Your task to perform on an android device: check google app version Image 0: 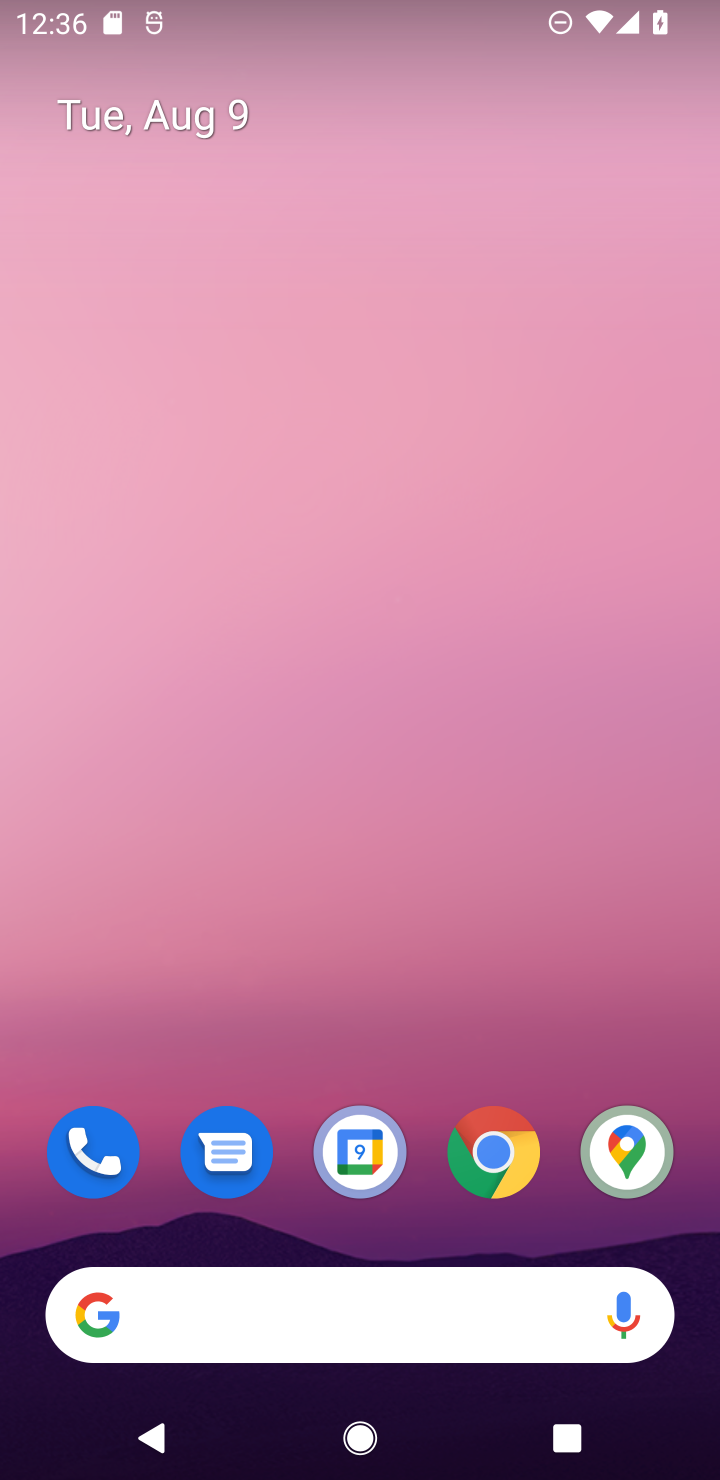
Step 0: drag from (413, 1081) to (364, 176)
Your task to perform on an android device: check google app version Image 1: 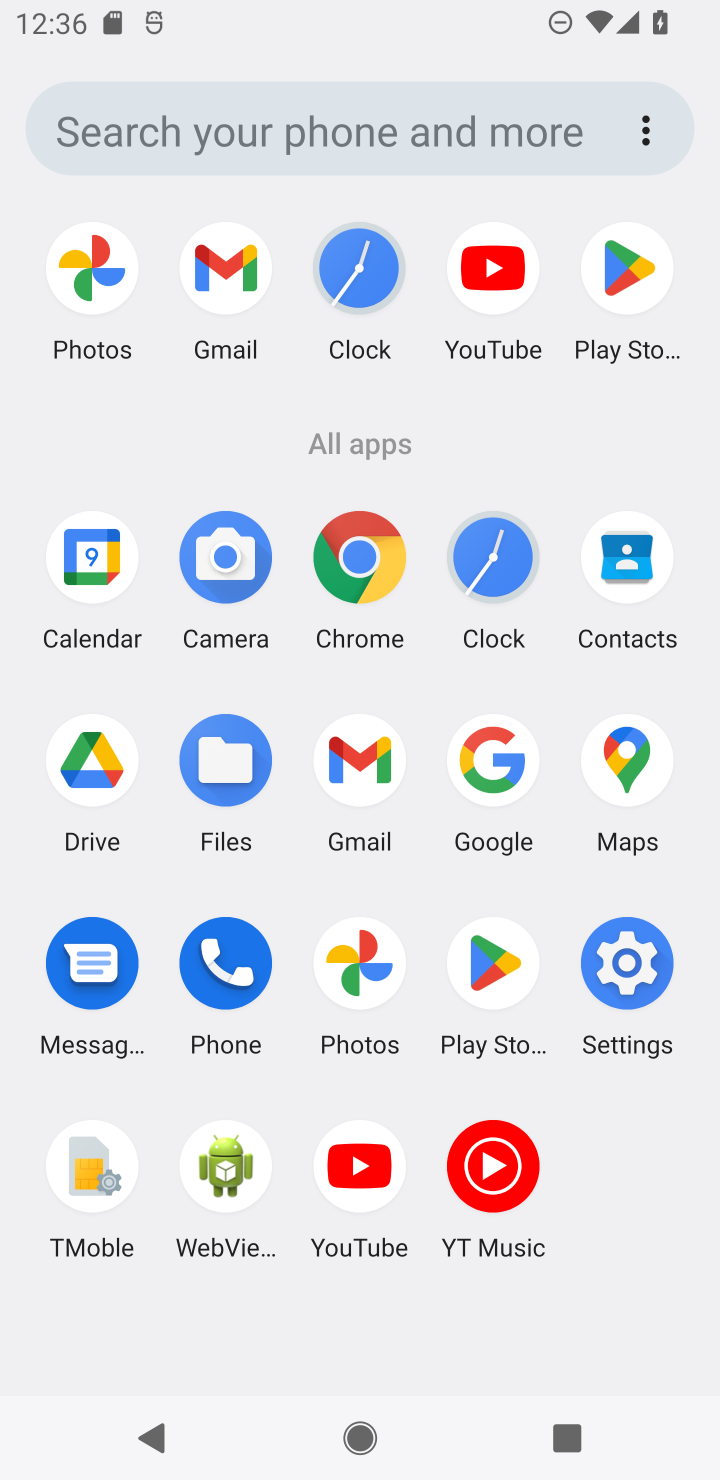
Step 1: click (492, 769)
Your task to perform on an android device: check google app version Image 2: 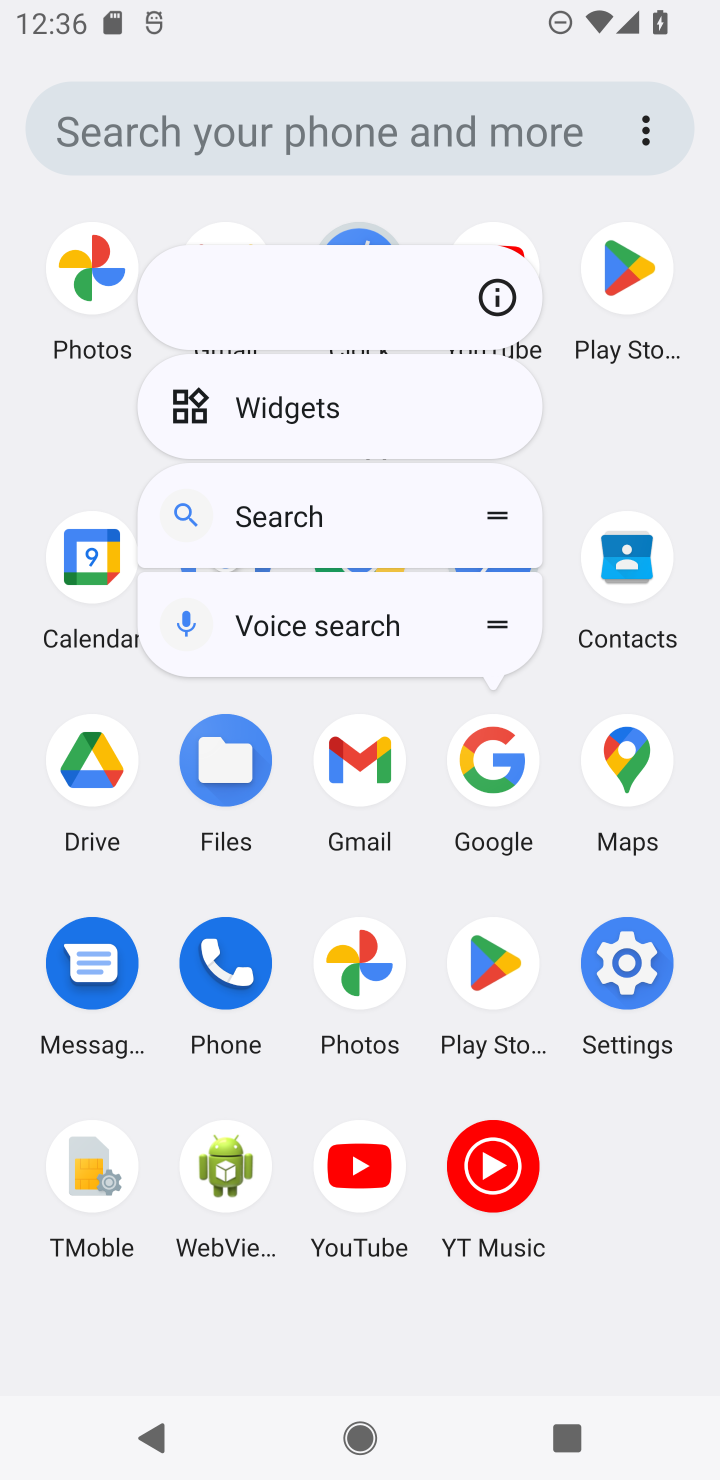
Step 2: click (492, 289)
Your task to perform on an android device: check google app version Image 3: 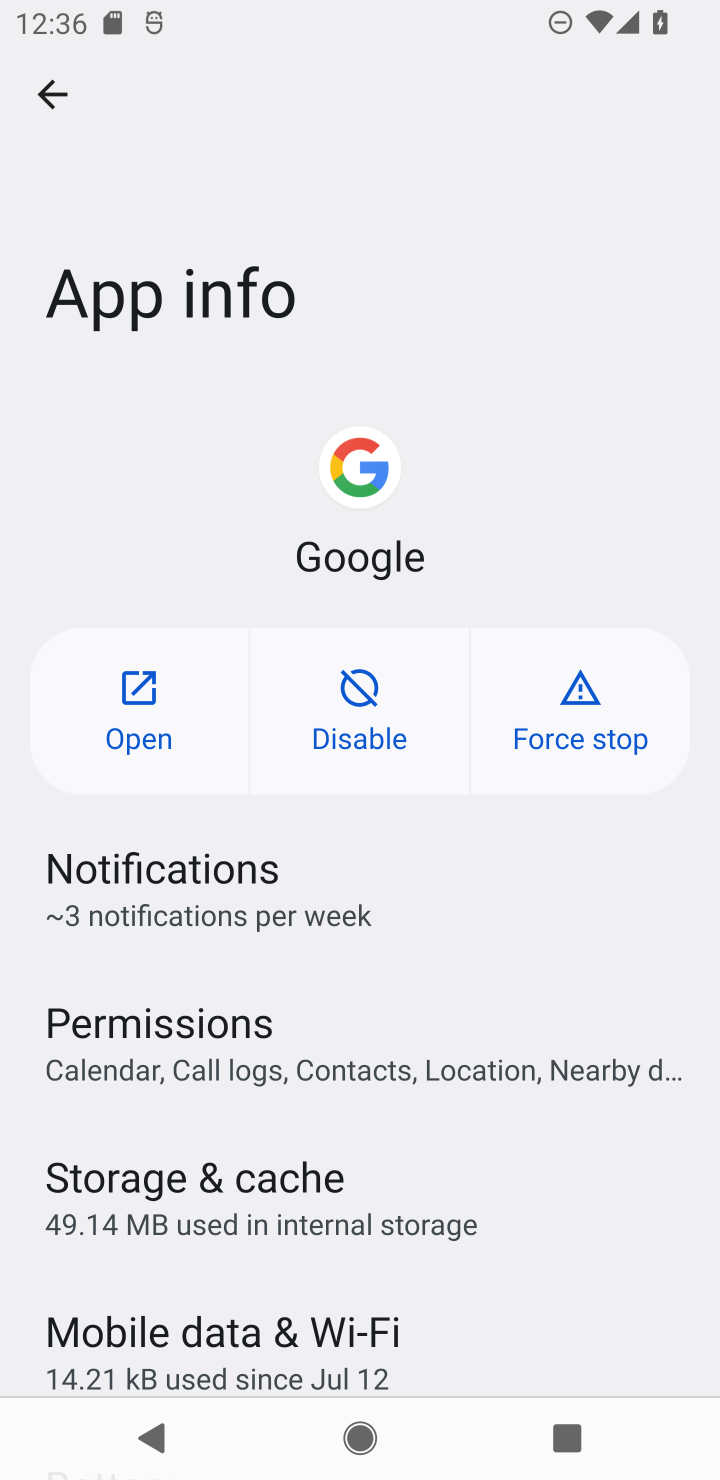
Step 3: task complete